Your task to perform on an android device: Open sound settings Image 0: 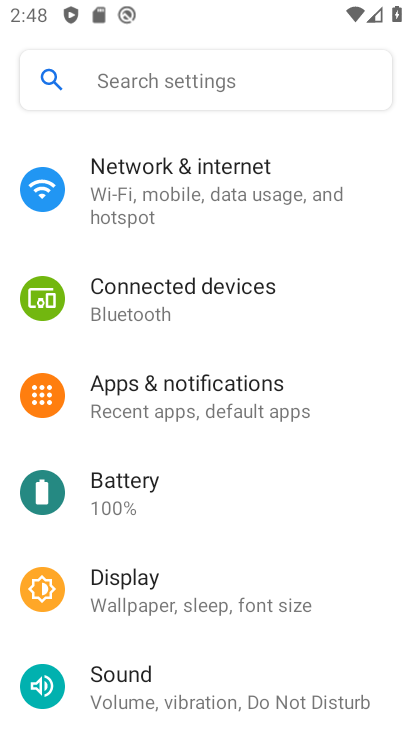
Step 0: press home button
Your task to perform on an android device: Open sound settings Image 1: 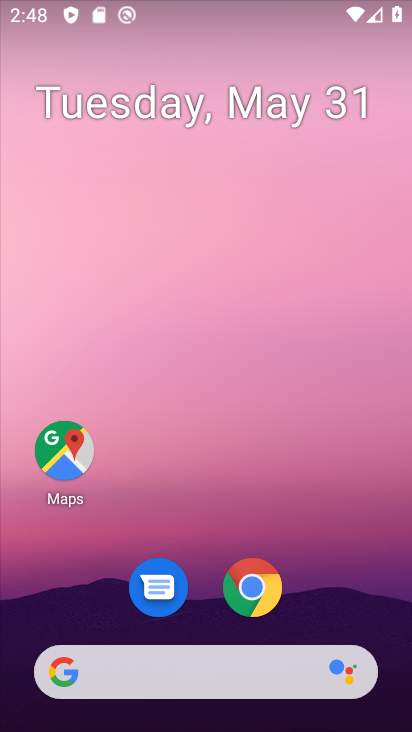
Step 1: drag from (323, 616) to (351, 63)
Your task to perform on an android device: Open sound settings Image 2: 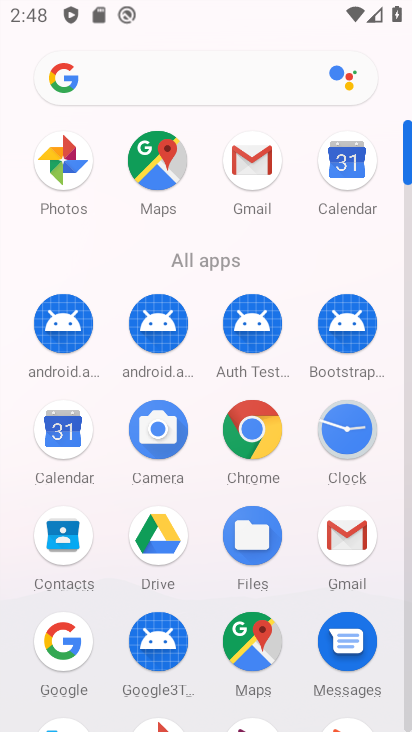
Step 2: drag from (216, 510) to (192, 167)
Your task to perform on an android device: Open sound settings Image 3: 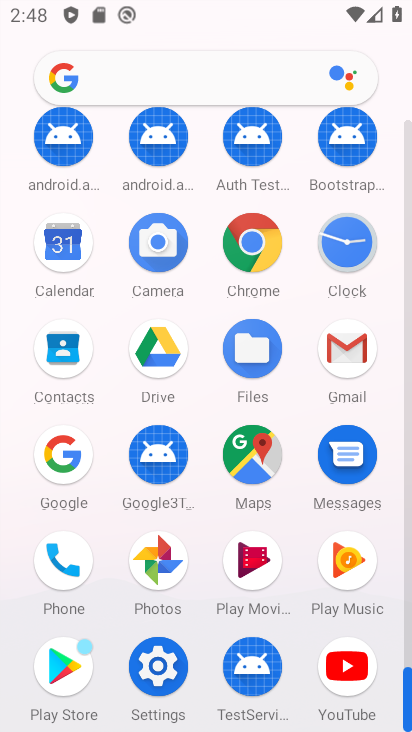
Step 3: click (156, 668)
Your task to perform on an android device: Open sound settings Image 4: 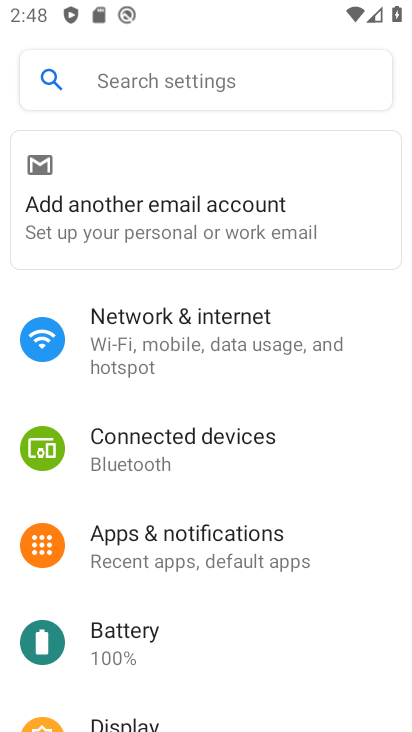
Step 4: drag from (149, 601) to (143, 201)
Your task to perform on an android device: Open sound settings Image 5: 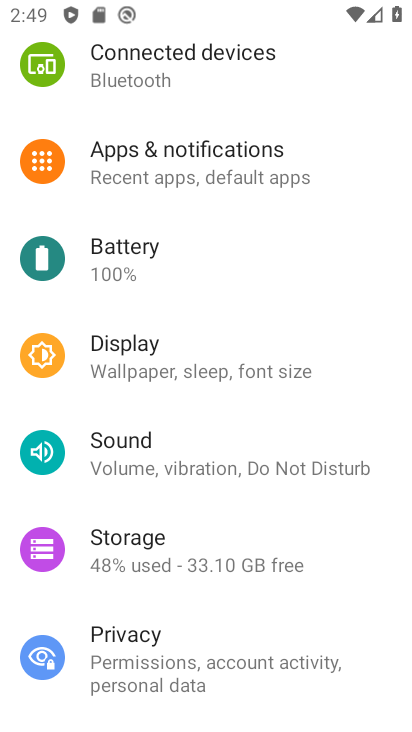
Step 5: click (191, 458)
Your task to perform on an android device: Open sound settings Image 6: 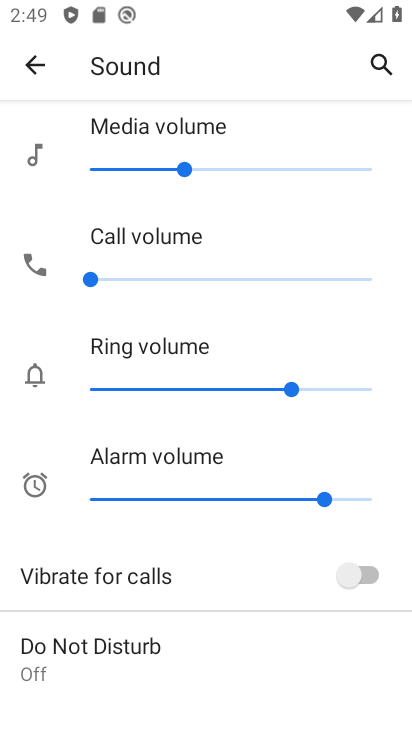
Step 6: task complete